Your task to perform on an android device: find snoozed emails in the gmail app Image 0: 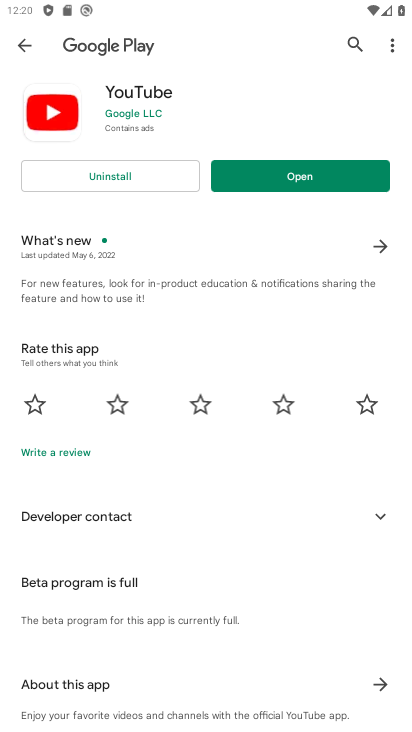
Step 0: press home button
Your task to perform on an android device: find snoozed emails in the gmail app Image 1: 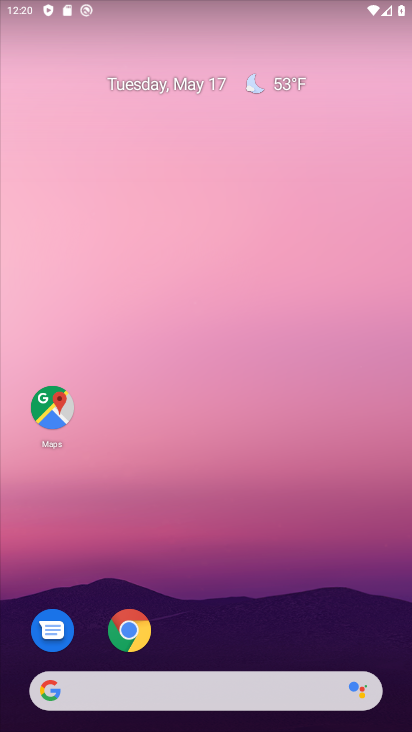
Step 1: drag from (293, 288) to (304, 237)
Your task to perform on an android device: find snoozed emails in the gmail app Image 2: 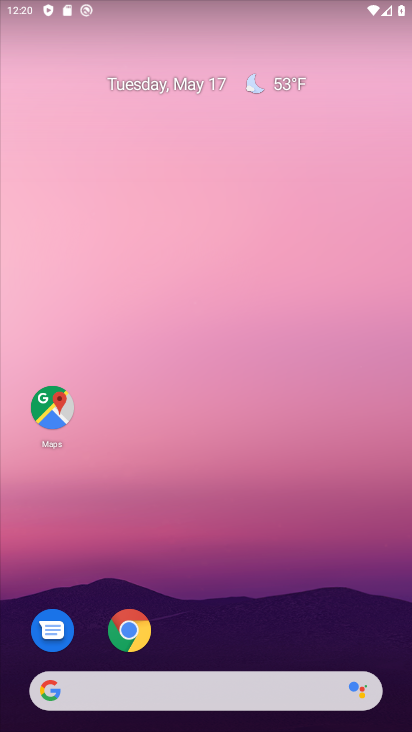
Step 2: drag from (234, 609) to (287, 226)
Your task to perform on an android device: find snoozed emails in the gmail app Image 3: 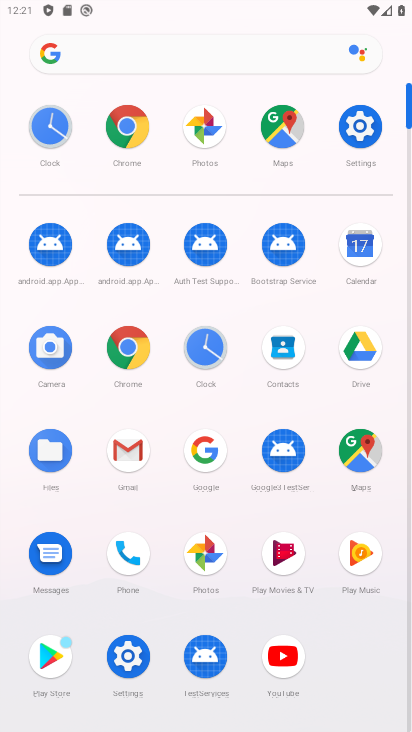
Step 3: click (132, 465)
Your task to perform on an android device: find snoozed emails in the gmail app Image 4: 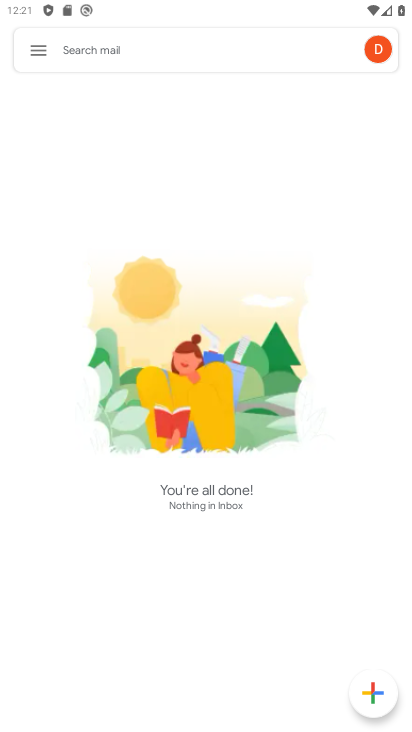
Step 4: click (35, 54)
Your task to perform on an android device: find snoozed emails in the gmail app Image 5: 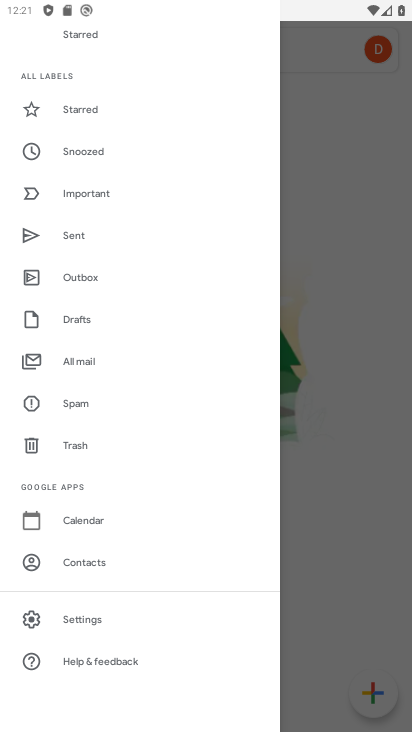
Step 5: drag from (90, 236) to (89, 350)
Your task to perform on an android device: find snoozed emails in the gmail app Image 6: 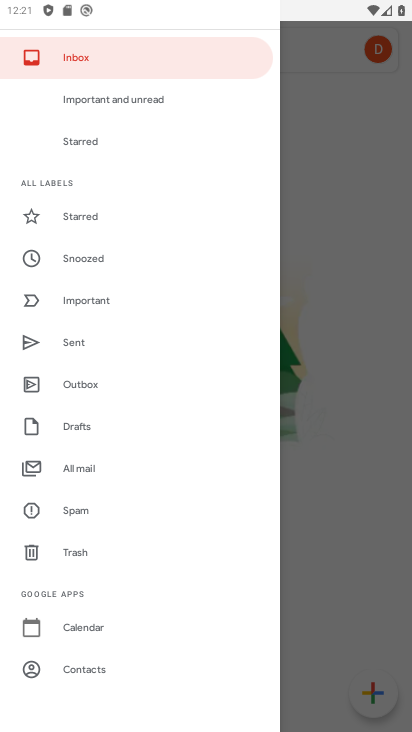
Step 6: click (86, 263)
Your task to perform on an android device: find snoozed emails in the gmail app Image 7: 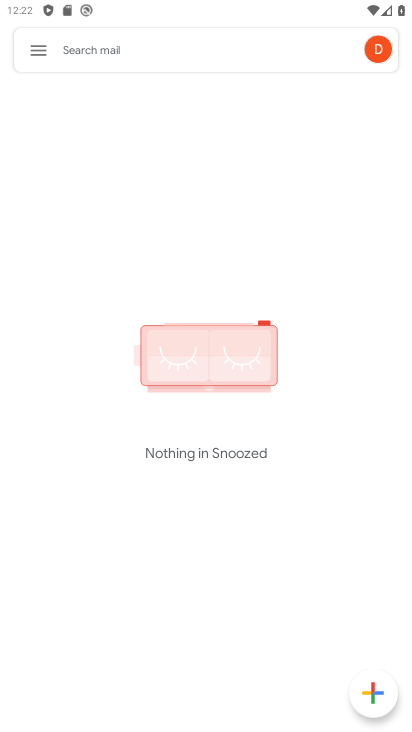
Step 7: task complete